Your task to perform on an android device: Go to eBay Image 0: 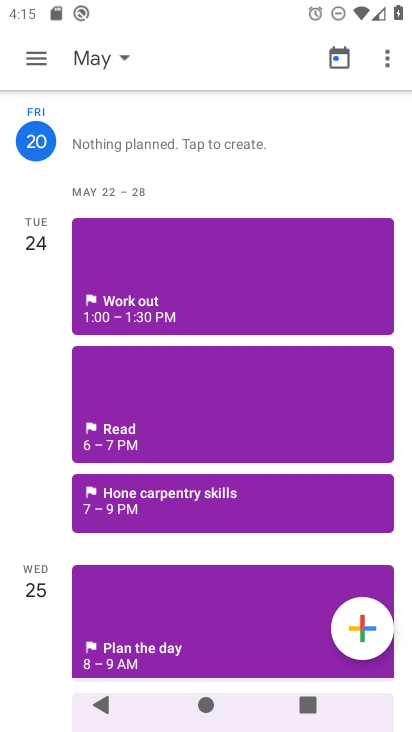
Step 0: click (250, 546)
Your task to perform on an android device: Go to eBay Image 1: 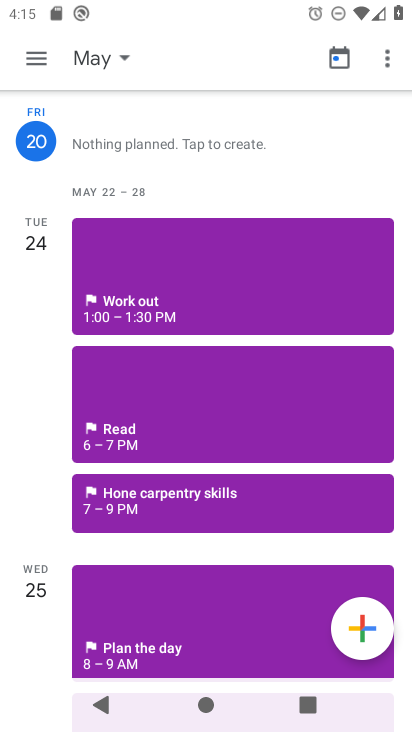
Step 1: press home button
Your task to perform on an android device: Go to eBay Image 2: 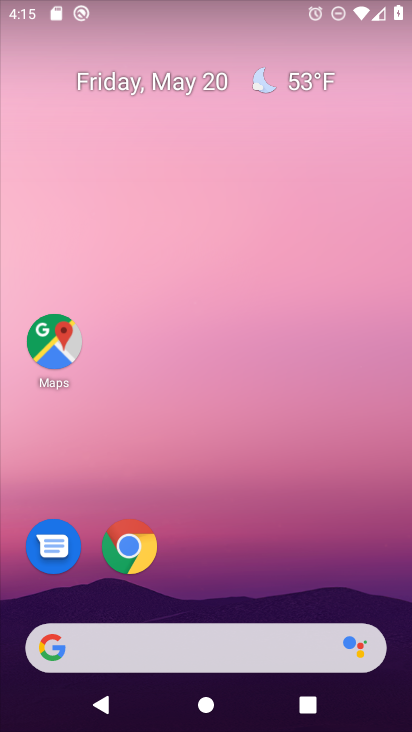
Step 2: click (126, 547)
Your task to perform on an android device: Go to eBay Image 3: 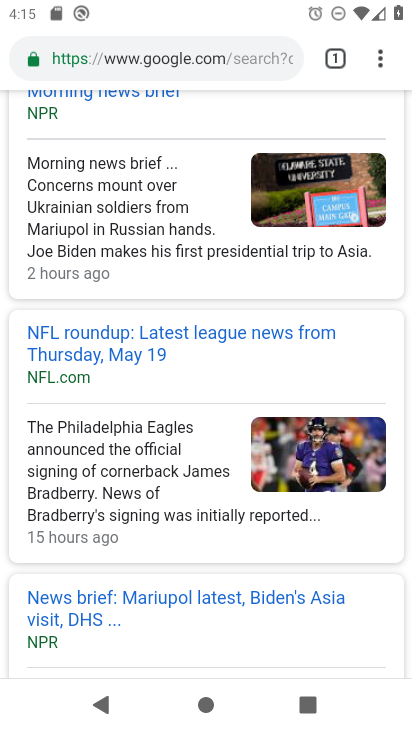
Step 3: click (219, 52)
Your task to perform on an android device: Go to eBay Image 4: 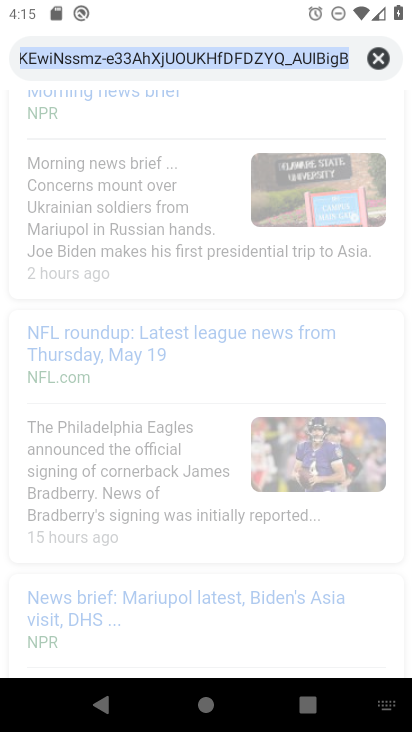
Step 4: click (379, 57)
Your task to perform on an android device: Go to eBay Image 5: 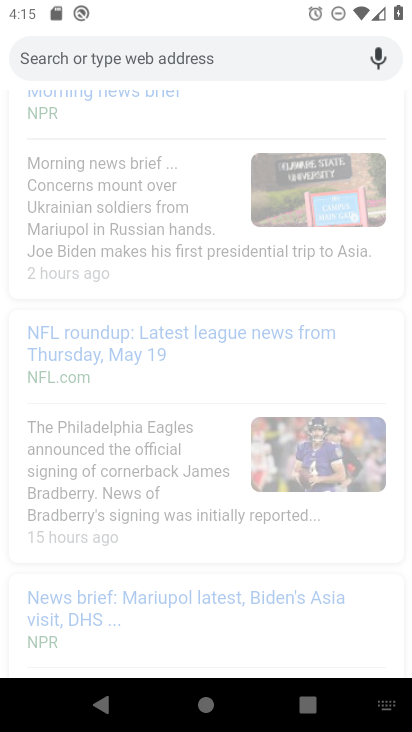
Step 5: type "ebay"
Your task to perform on an android device: Go to eBay Image 6: 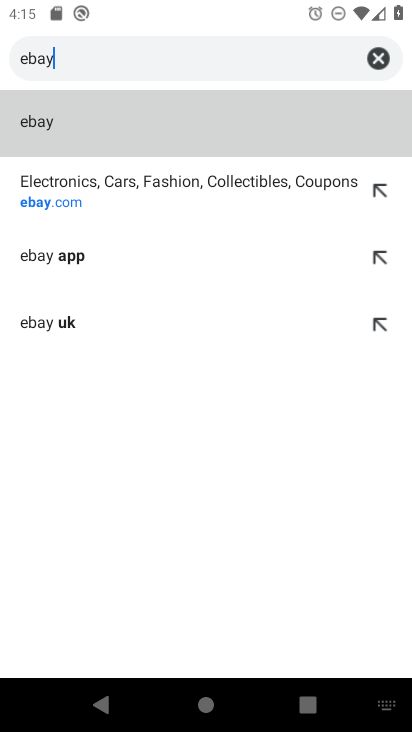
Step 6: click (30, 197)
Your task to perform on an android device: Go to eBay Image 7: 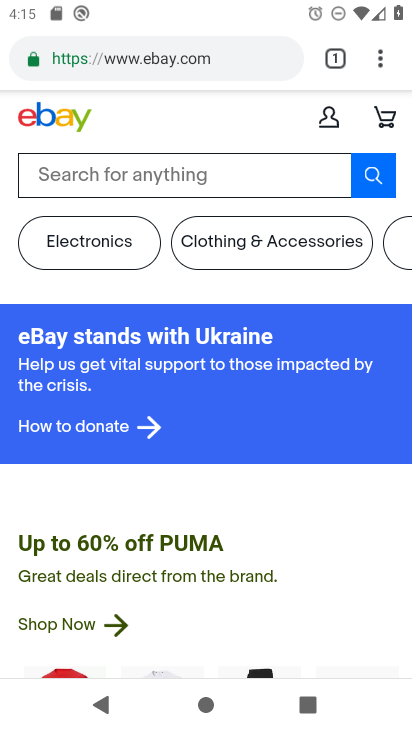
Step 7: task complete